Your task to perform on an android device: toggle location history Image 0: 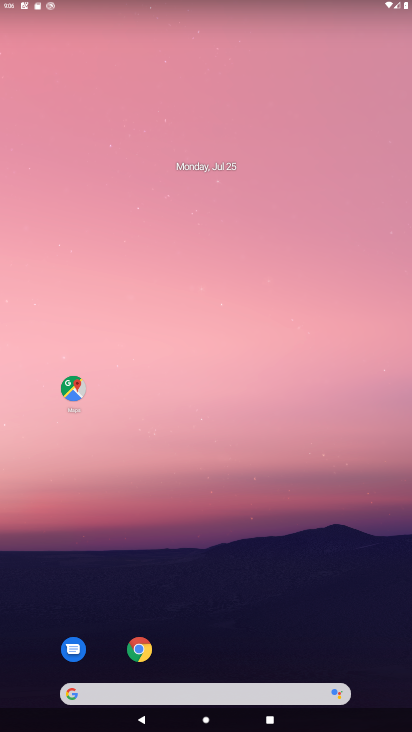
Step 0: drag from (217, 666) to (163, 30)
Your task to perform on an android device: toggle location history Image 1: 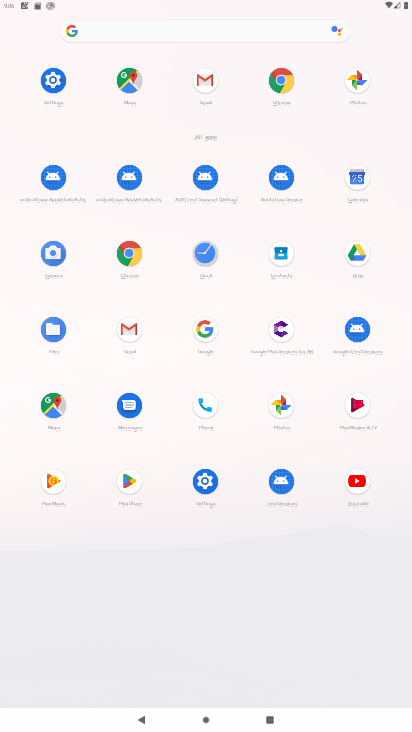
Step 1: click (197, 456)
Your task to perform on an android device: toggle location history Image 2: 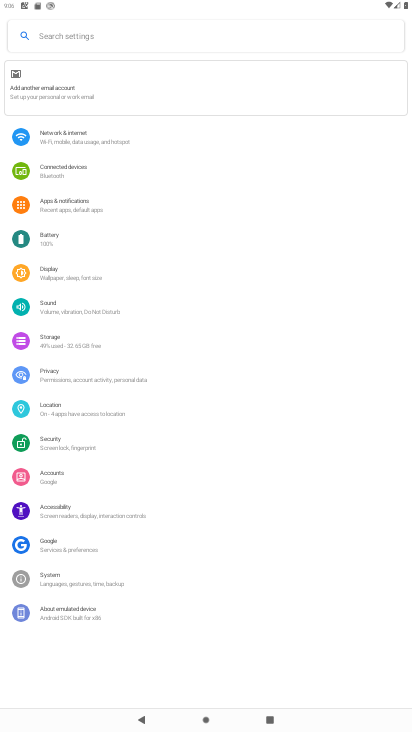
Step 2: click (53, 405)
Your task to perform on an android device: toggle location history Image 3: 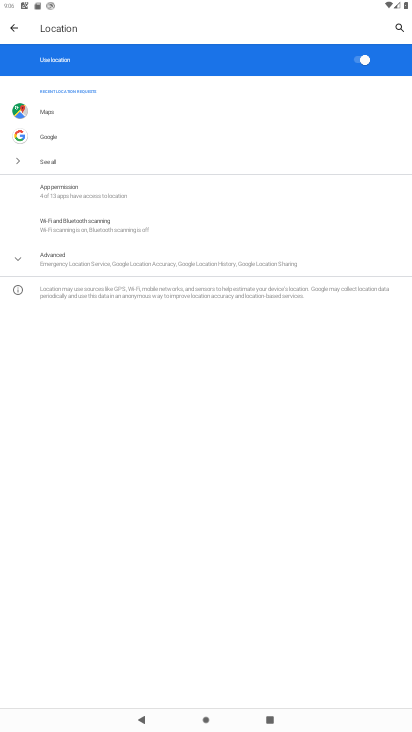
Step 3: click (71, 255)
Your task to perform on an android device: toggle location history Image 4: 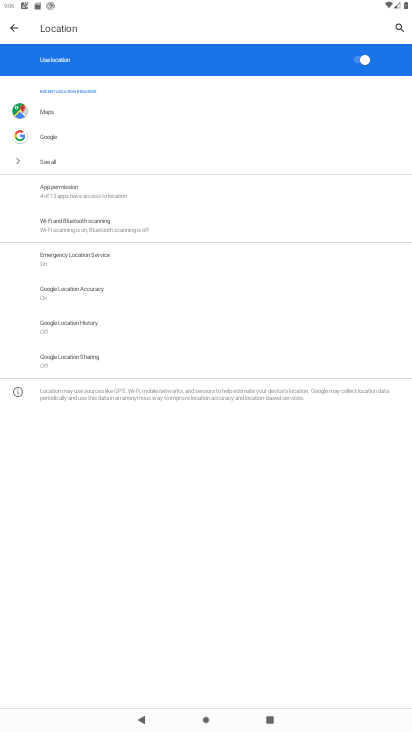
Step 4: click (71, 255)
Your task to perform on an android device: toggle location history Image 5: 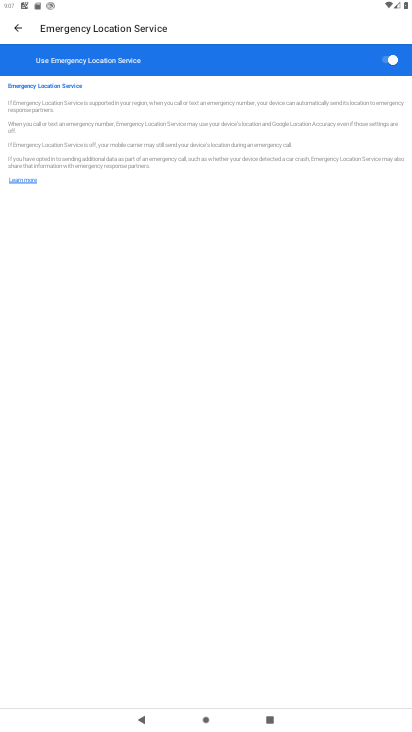
Step 5: task complete